Your task to perform on an android device: check out phone information Image 0: 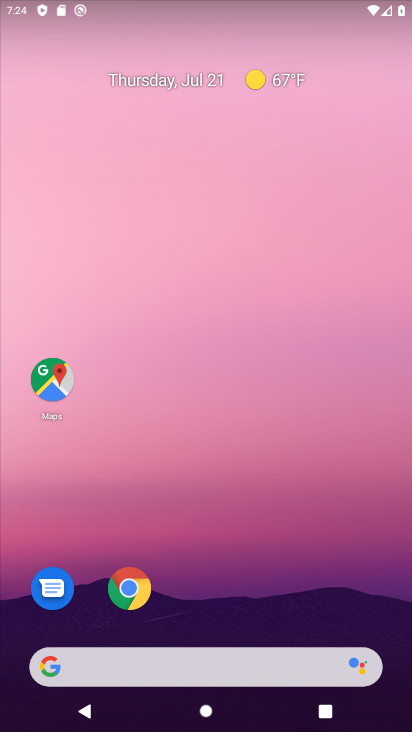
Step 0: drag from (239, 513) to (344, 136)
Your task to perform on an android device: check out phone information Image 1: 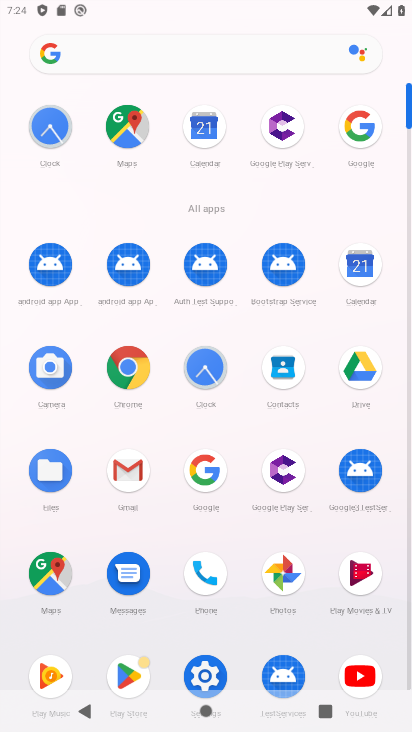
Step 1: click (207, 585)
Your task to perform on an android device: check out phone information Image 2: 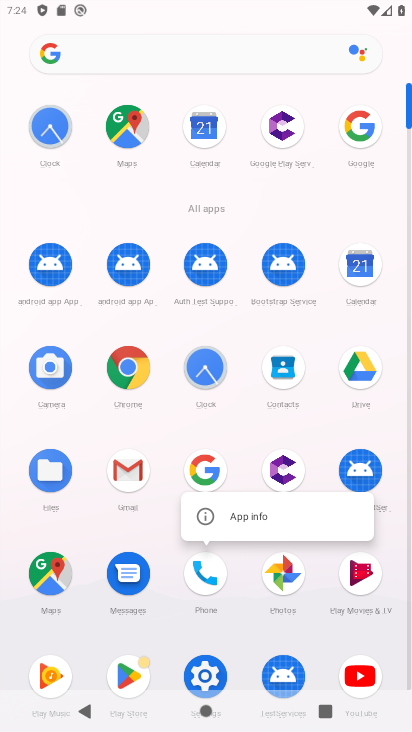
Step 2: click (230, 517)
Your task to perform on an android device: check out phone information Image 3: 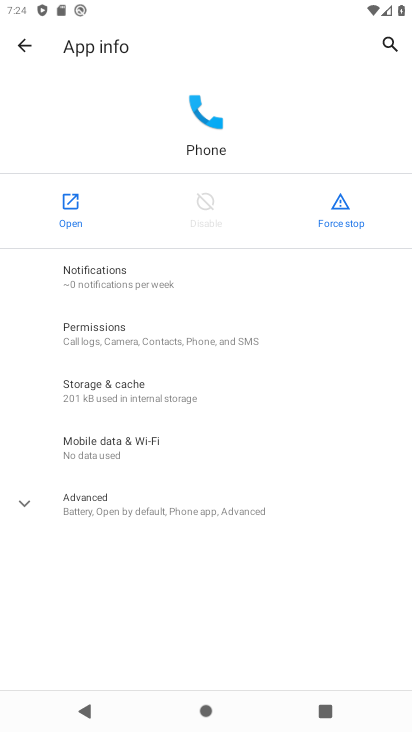
Step 3: click (116, 508)
Your task to perform on an android device: check out phone information Image 4: 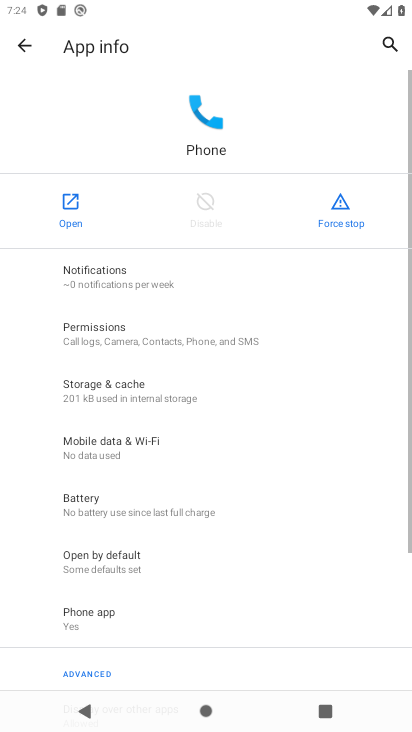
Step 4: task complete